Your task to perform on an android device: remove spam from my inbox in the gmail app Image 0: 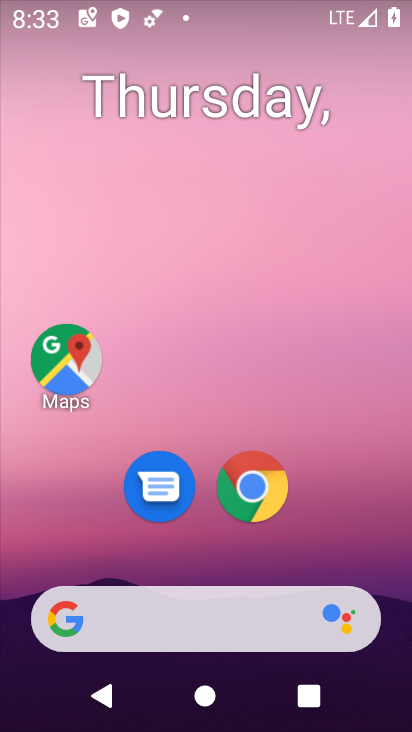
Step 0: click (255, 72)
Your task to perform on an android device: remove spam from my inbox in the gmail app Image 1: 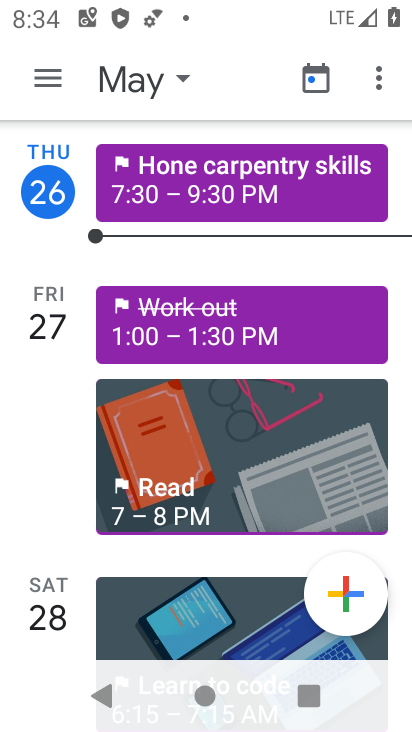
Step 1: press home button
Your task to perform on an android device: remove spam from my inbox in the gmail app Image 2: 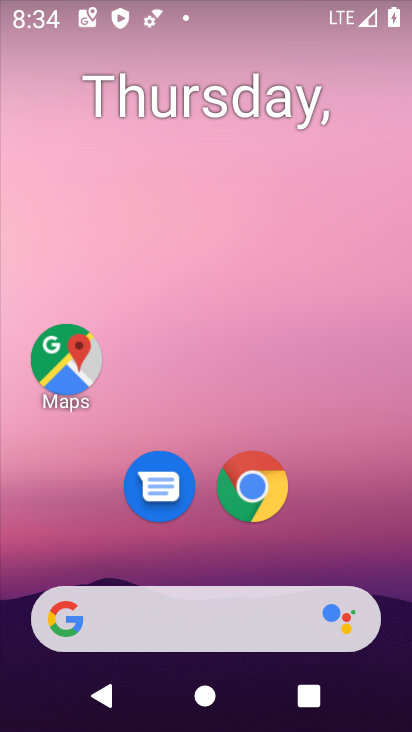
Step 2: drag from (230, 589) to (323, 31)
Your task to perform on an android device: remove spam from my inbox in the gmail app Image 3: 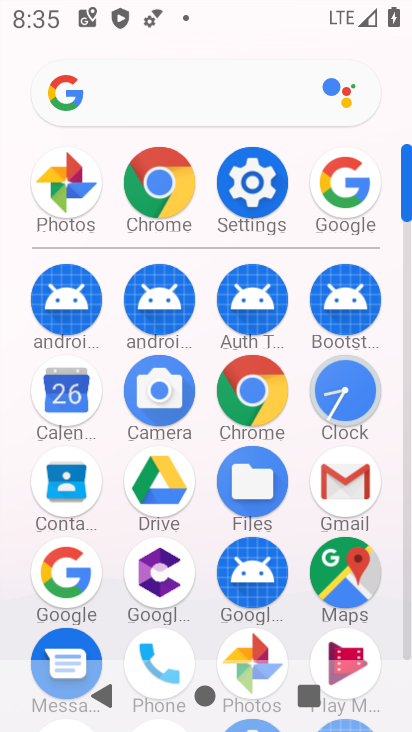
Step 3: click (351, 496)
Your task to perform on an android device: remove spam from my inbox in the gmail app Image 4: 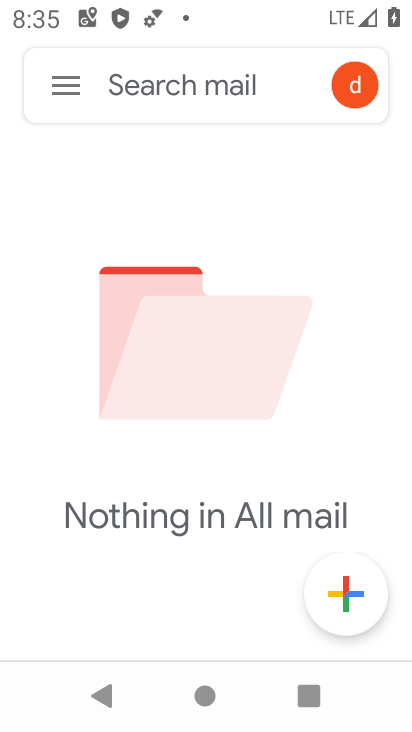
Step 4: click (64, 89)
Your task to perform on an android device: remove spam from my inbox in the gmail app Image 5: 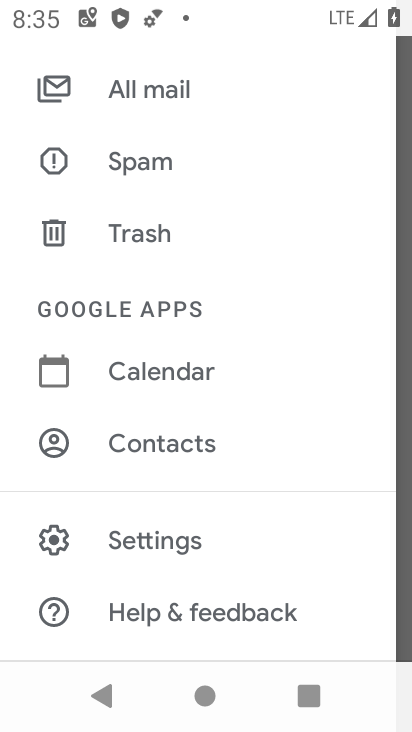
Step 5: task complete